Your task to perform on an android device: Open accessibility settings Image 0: 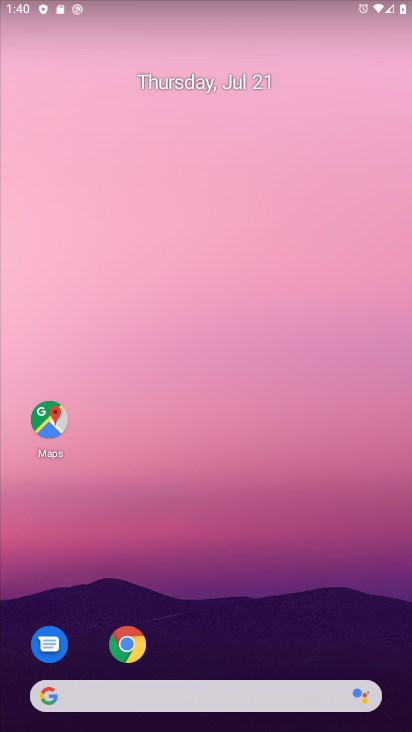
Step 0: drag from (245, 679) to (333, 220)
Your task to perform on an android device: Open accessibility settings Image 1: 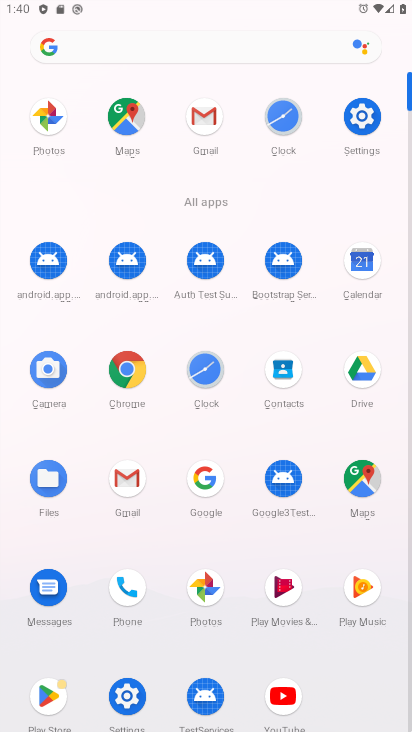
Step 1: click (359, 117)
Your task to perform on an android device: Open accessibility settings Image 2: 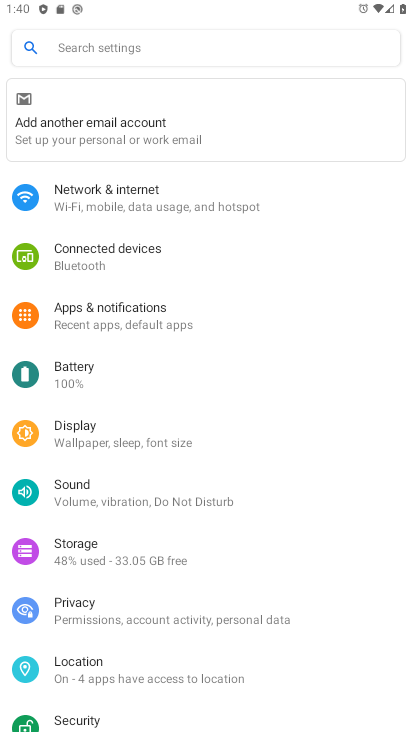
Step 2: drag from (182, 679) to (205, 182)
Your task to perform on an android device: Open accessibility settings Image 3: 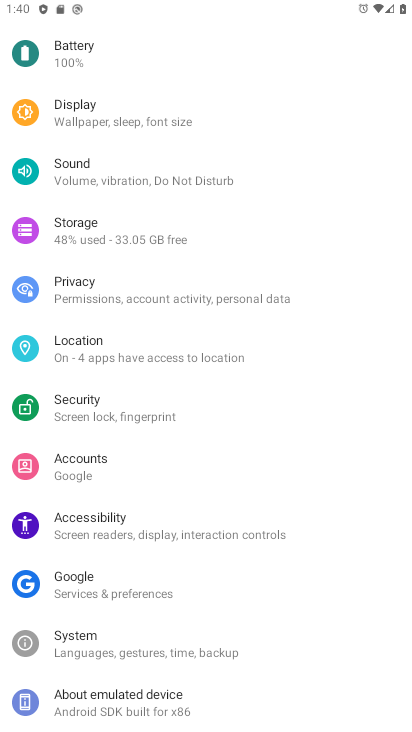
Step 3: click (90, 529)
Your task to perform on an android device: Open accessibility settings Image 4: 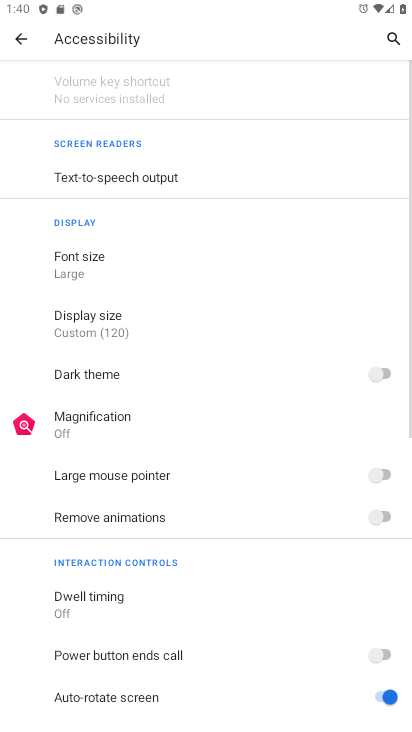
Step 4: task complete